Your task to perform on an android device: Open the stopwatch Image 0: 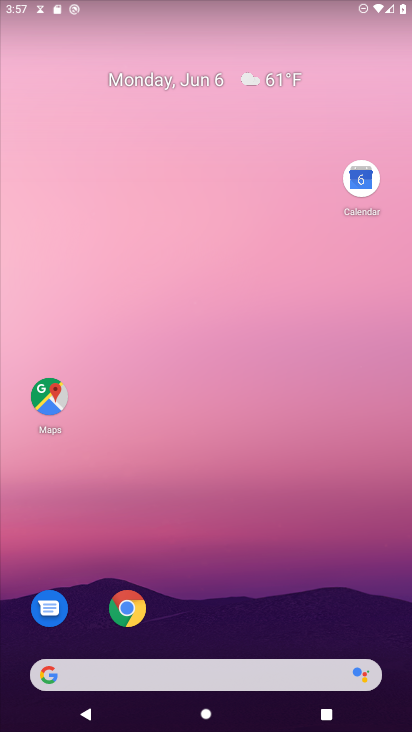
Step 0: drag from (216, 559) to (220, 48)
Your task to perform on an android device: Open the stopwatch Image 1: 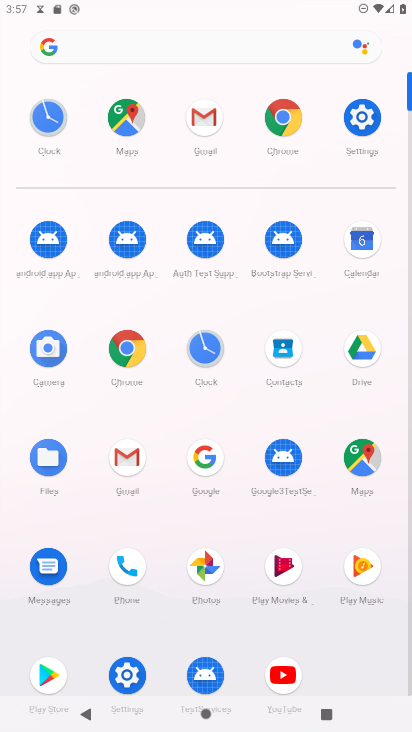
Step 1: click (200, 348)
Your task to perform on an android device: Open the stopwatch Image 2: 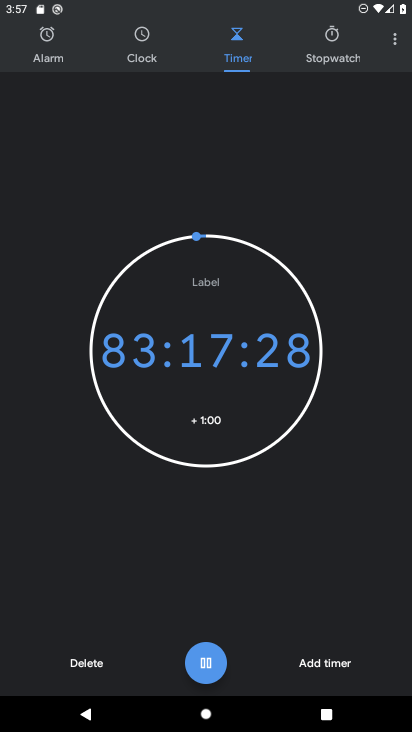
Step 2: click (341, 50)
Your task to perform on an android device: Open the stopwatch Image 3: 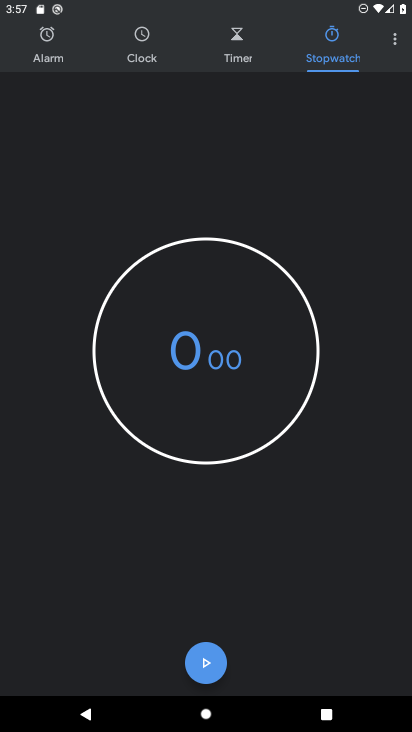
Step 3: task complete